Your task to perform on an android device: add a label to a message in the gmail app Image 0: 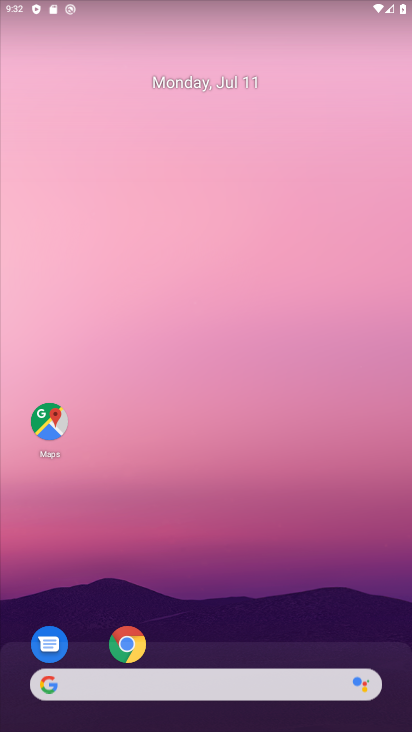
Step 0: drag from (213, 657) to (202, 170)
Your task to perform on an android device: add a label to a message in the gmail app Image 1: 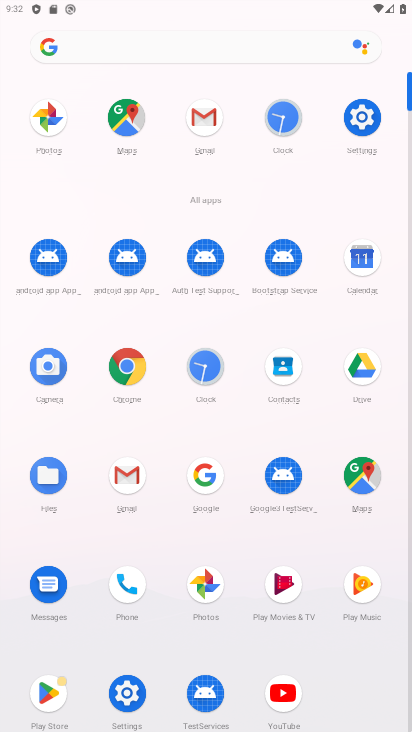
Step 1: click (209, 117)
Your task to perform on an android device: add a label to a message in the gmail app Image 2: 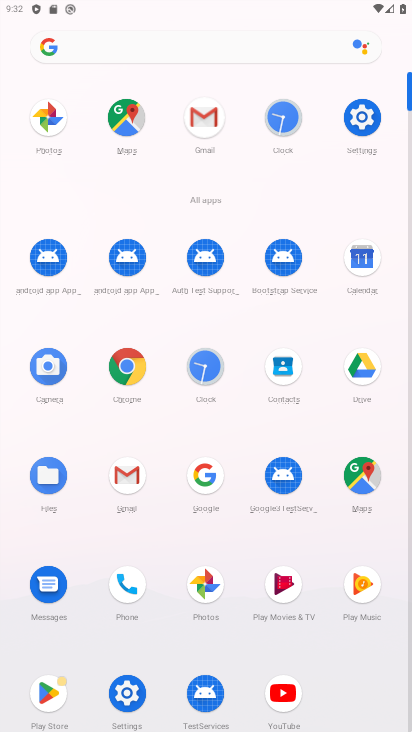
Step 2: click (204, 120)
Your task to perform on an android device: add a label to a message in the gmail app Image 3: 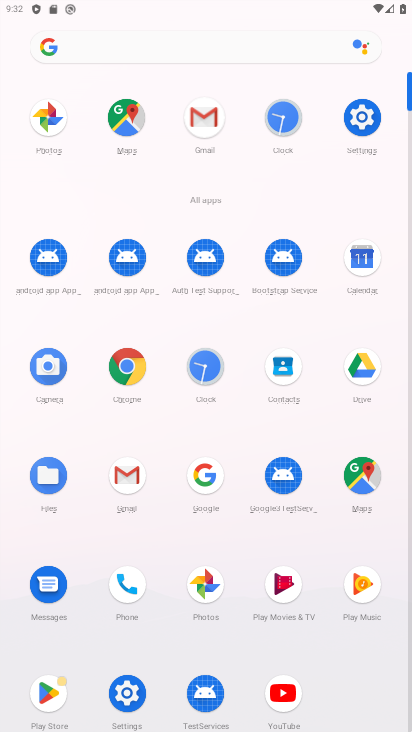
Step 3: click (204, 128)
Your task to perform on an android device: add a label to a message in the gmail app Image 4: 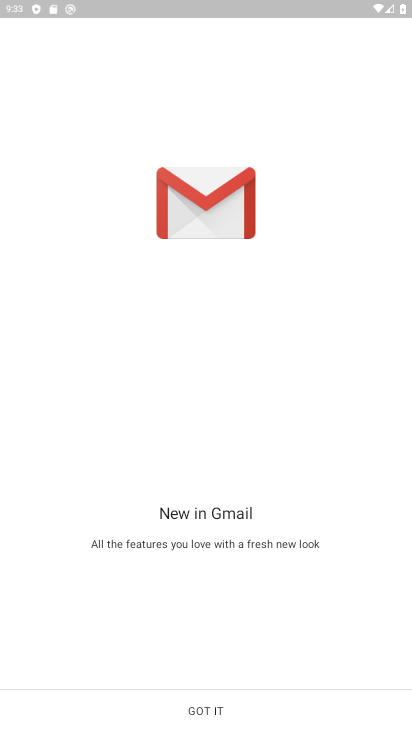
Step 4: click (251, 709)
Your task to perform on an android device: add a label to a message in the gmail app Image 5: 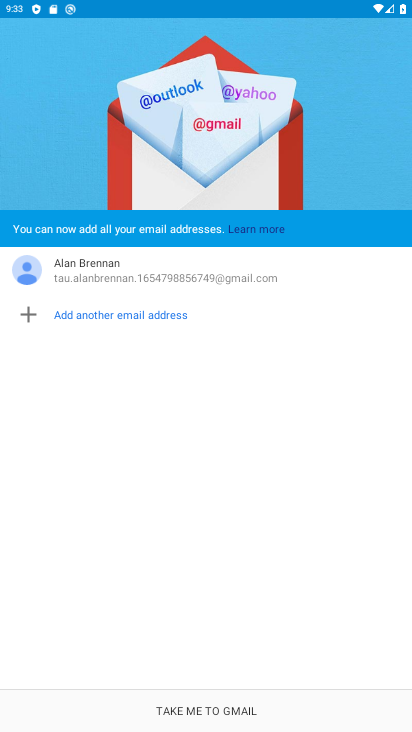
Step 5: click (219, 711)
Your task to perform on an android device: add a label to a message in the gmail app Image 6: 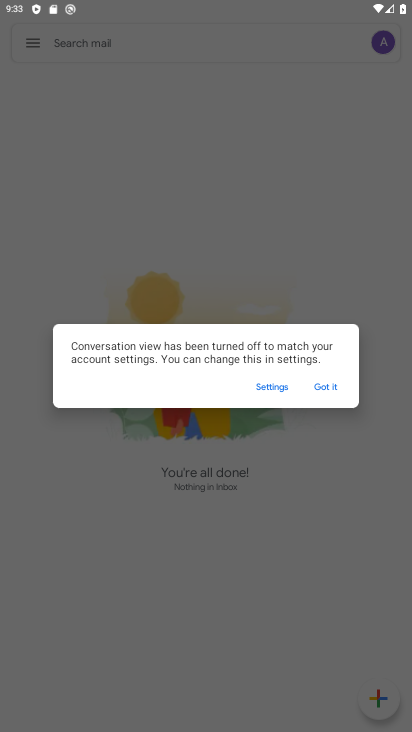
Step 6: click (326, 386)
Your task to perform on an android device: add a label to a message in the gmail app Image 7: 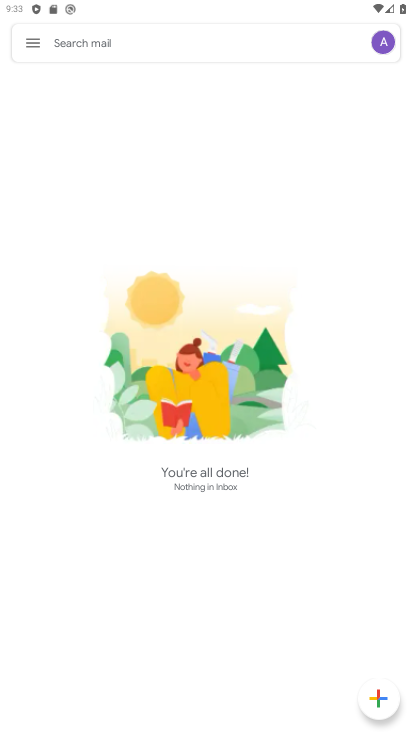
Step 7: click (33, 46)
Your task to perform on an android device: add a label to a message in the gmail app Image 8: 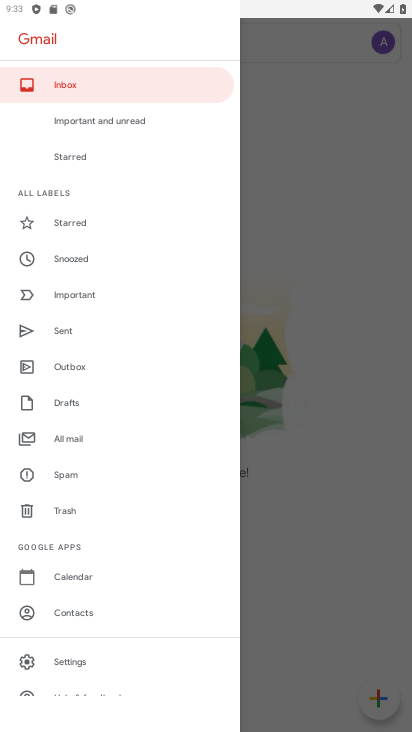
Step 8: click (299, 587)
Your task to perform on an android device: add a label to a message in the gmail app Image 9: 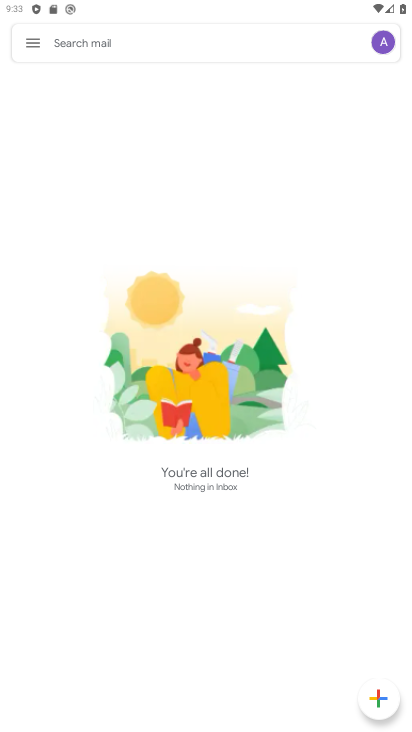
Step 9: task complete